Your task to perform on an android device: open app "ColorNote Notepad Notes" (install if not already installed) Image 0: 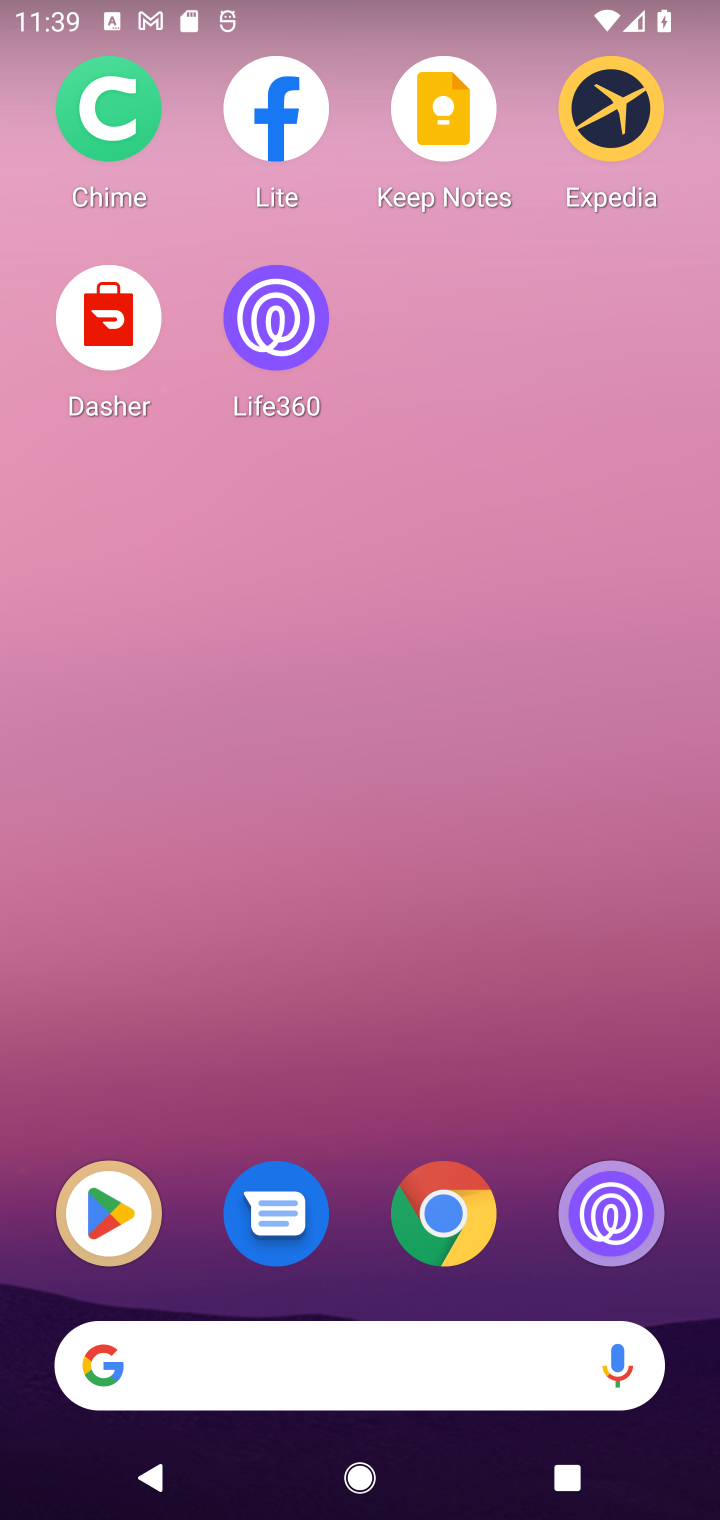
Step 0: click (114, 1220)
Your task to perform on an android device: open app "ColorNote Notepad Notes" (install if not already installed) Image 1: 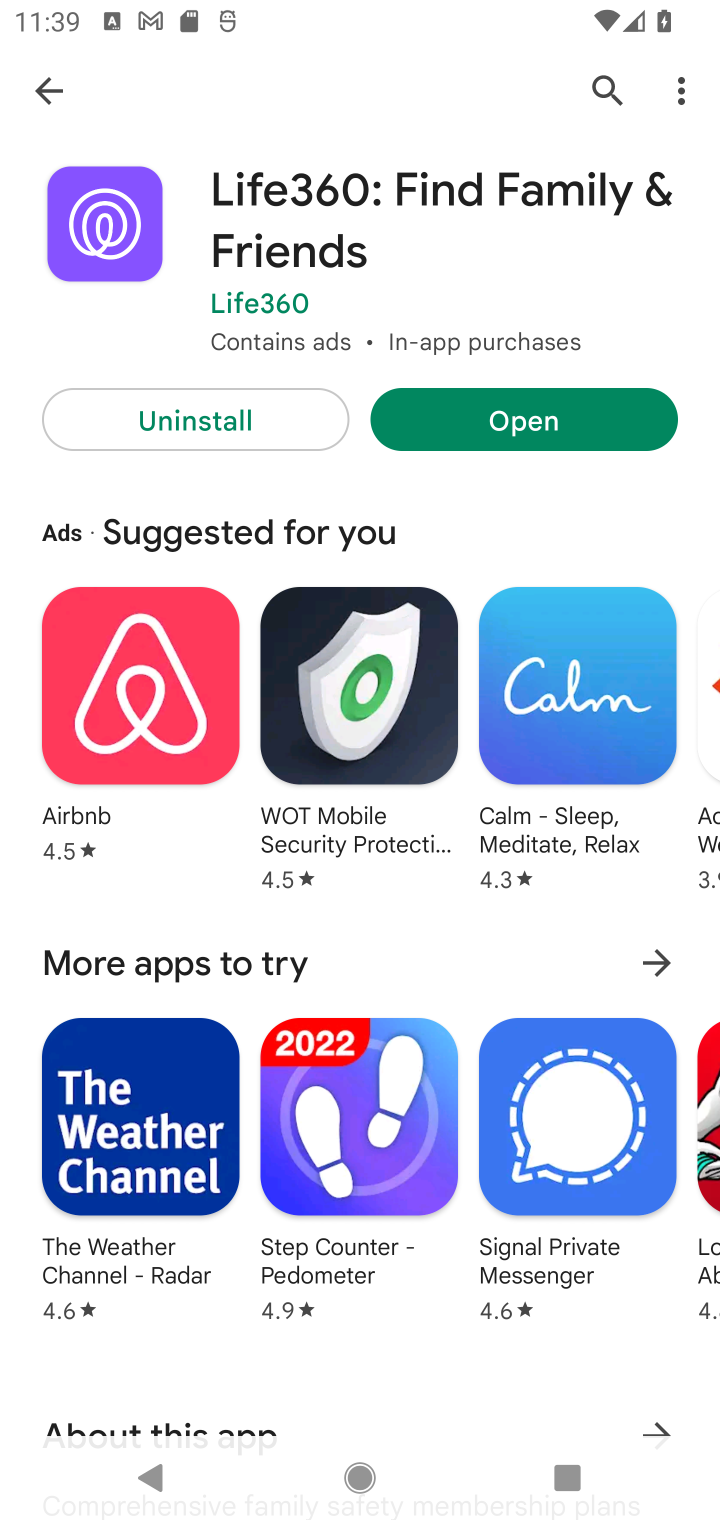
Step 1: click (58, 106)
Your task to perform on an android device: open app "ColorNote Notepad Notes" (install if not already installed) Image 2: 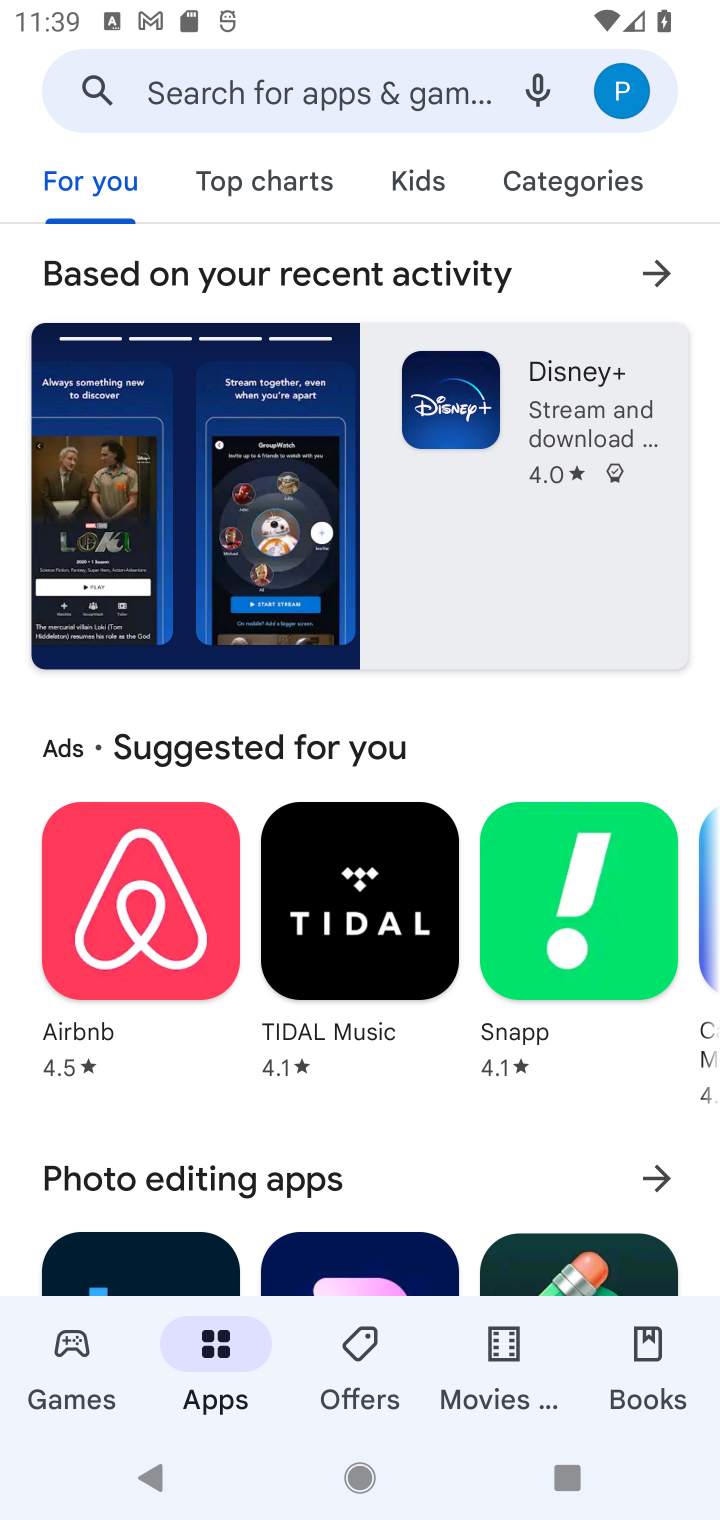
Step 2: click (340, 95)
Your task to perform on an android device: open app "ColorNote Notepad Notes" (install if not already installed) Image 3: 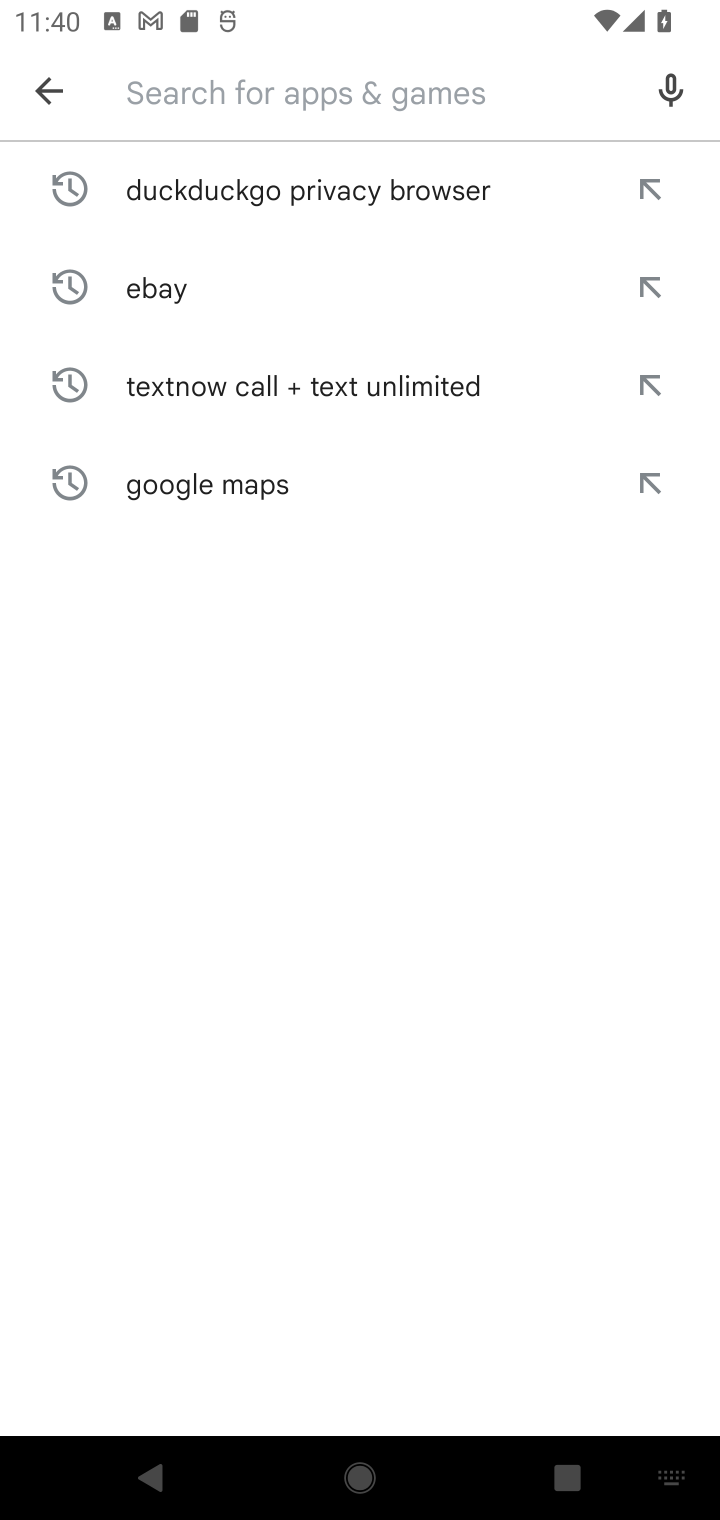
Step 3: type "ColorNote Notepad Notes"
Your task to perform on an android device: open app "ColorNote Notepad Notes" (install if not already installed) Image 4: 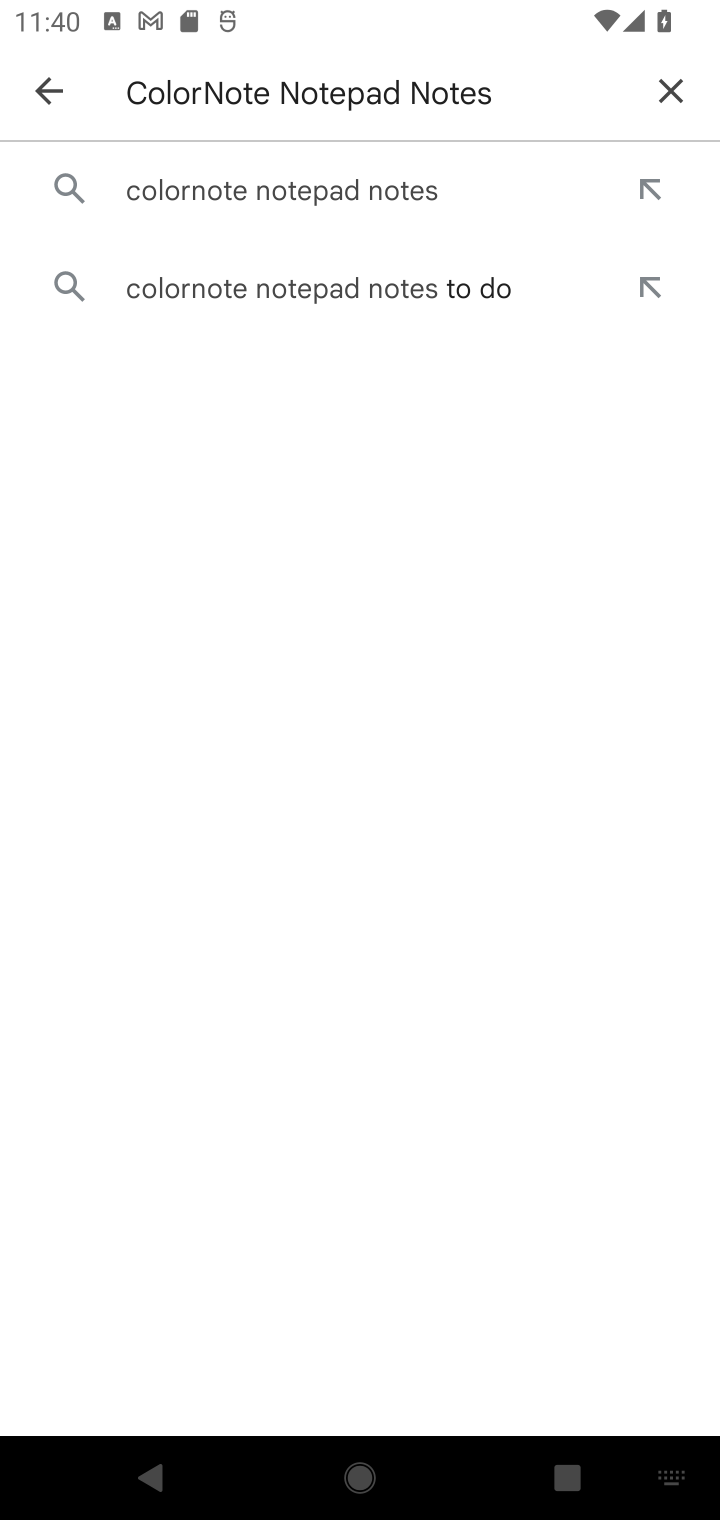
Step 4: click (399, 195)
Your task to perform on an android device: open app "ColorNote Notepad Notes" (install if not already installed) Image 5: 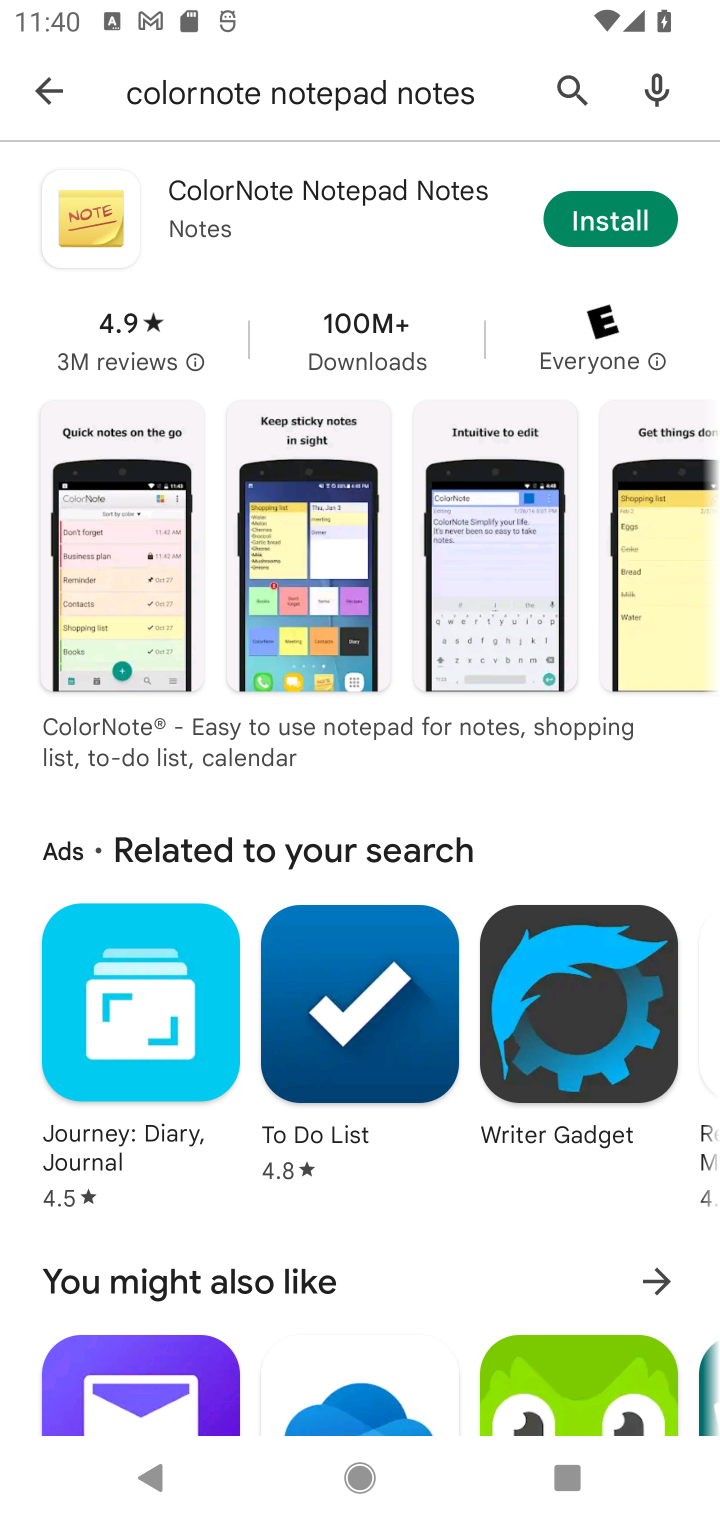
Step 5: click (616, 218)
Your task to perform on an android device: open app "ColorNote Notepad Notes" (install if not already installed) Image 6: 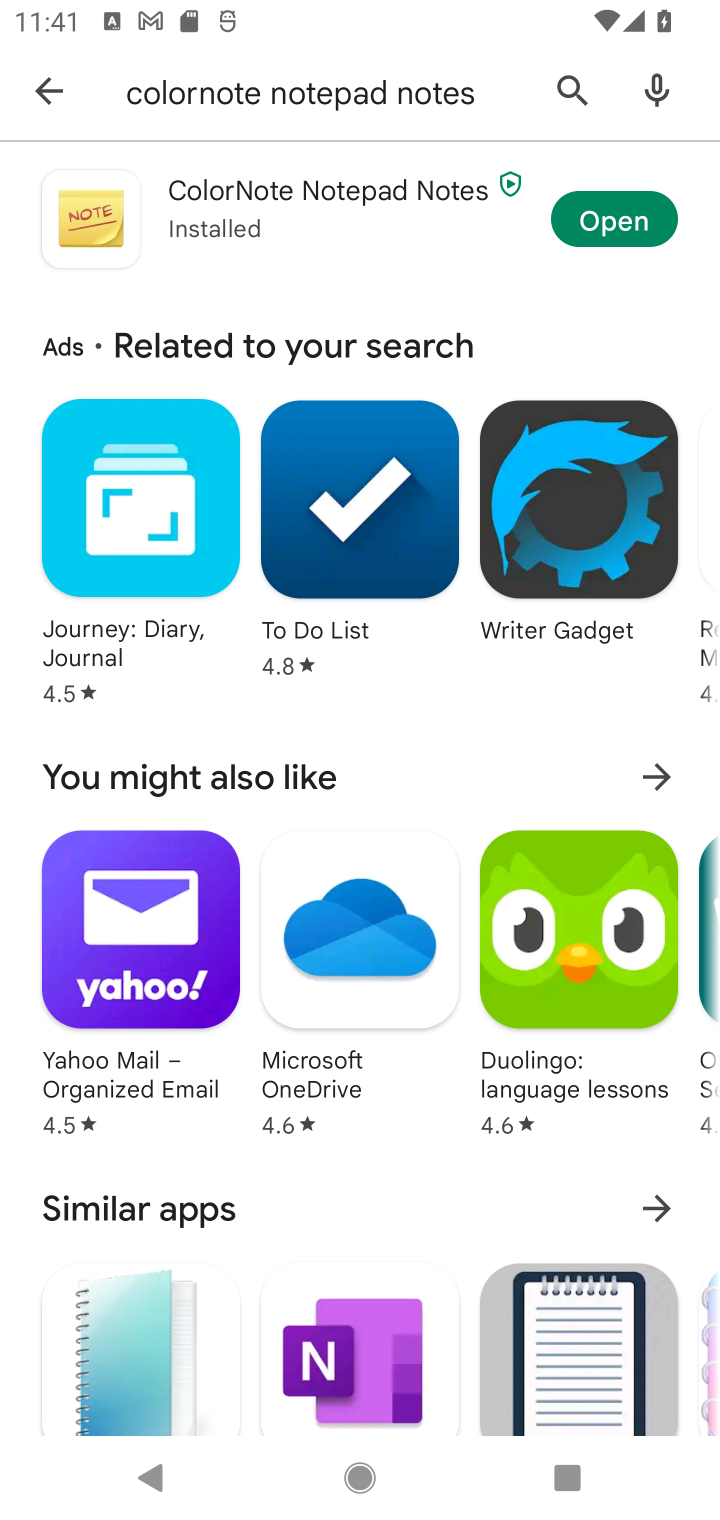
Step 6: click (610, 202)
Your task to perform on an android device: open app "ColorNote Notepad Notes" (install if not already installed) Image 7: 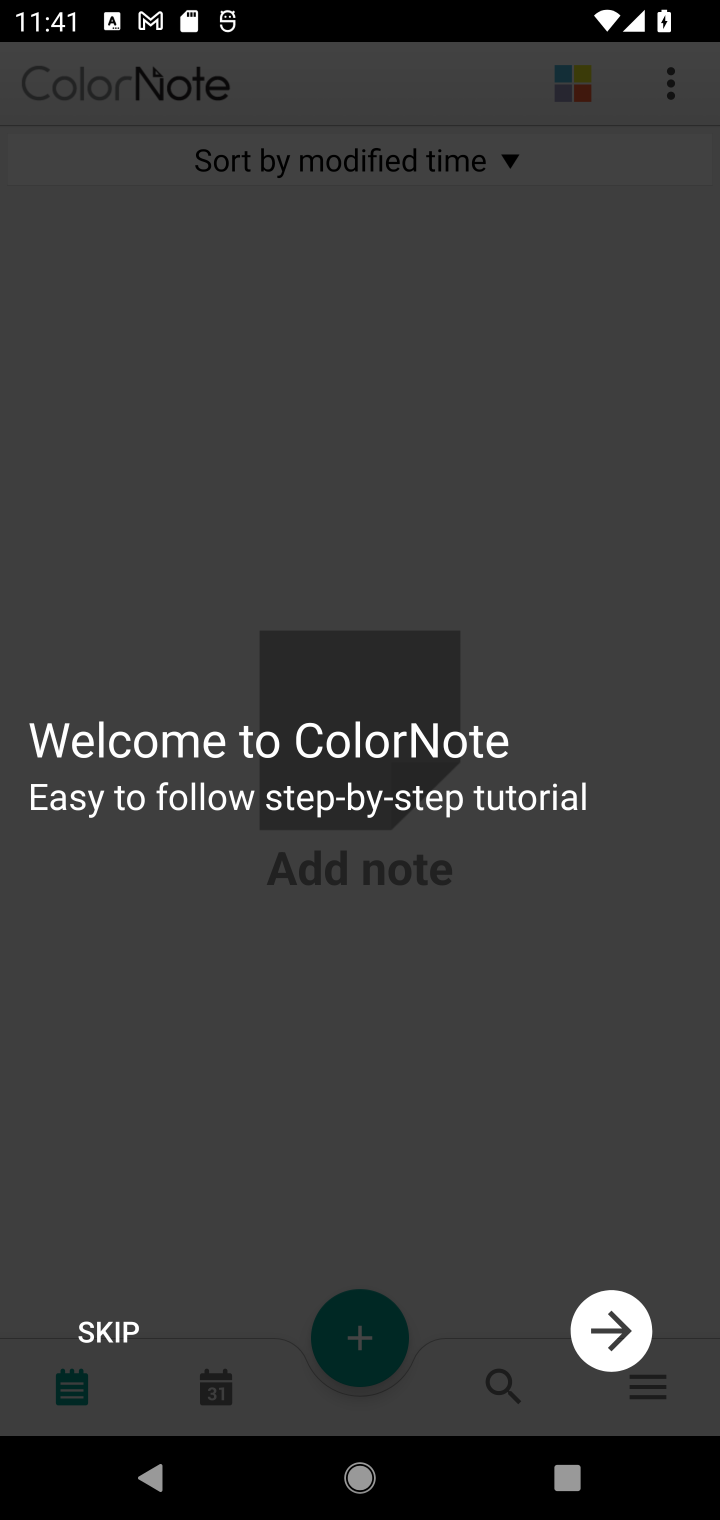
Step 7: task complete